Your task to perform on an android device: Clear the shopping cart on ebay. Search for alienware aurora on ebay, select the first entry, add it to the cart, then select checkout. Image 0: 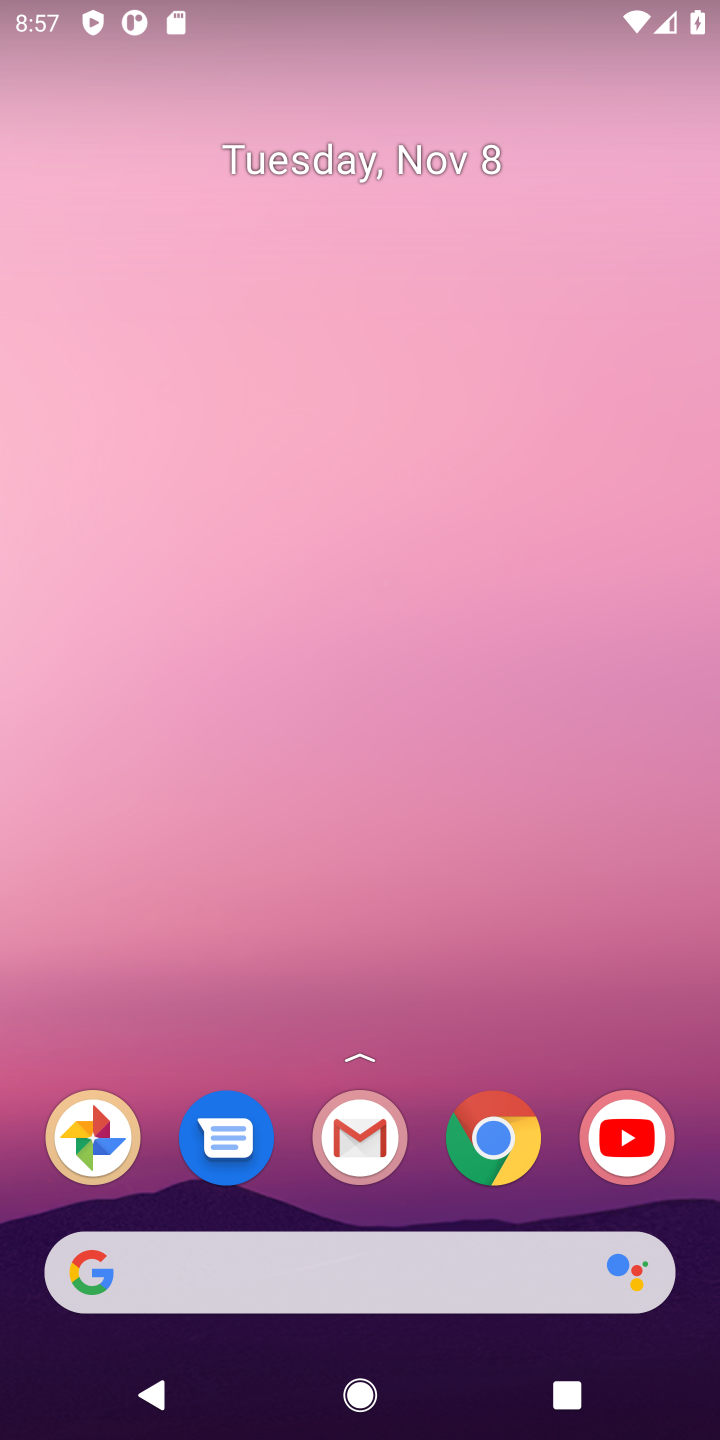
Step 0: click (493, 1121)
Your task to perform on an android device: Clear the shopping cart on ebay. Search for alienware aurora on ebay, select the first entry, add it to the cart, then select checkout. Image 1: 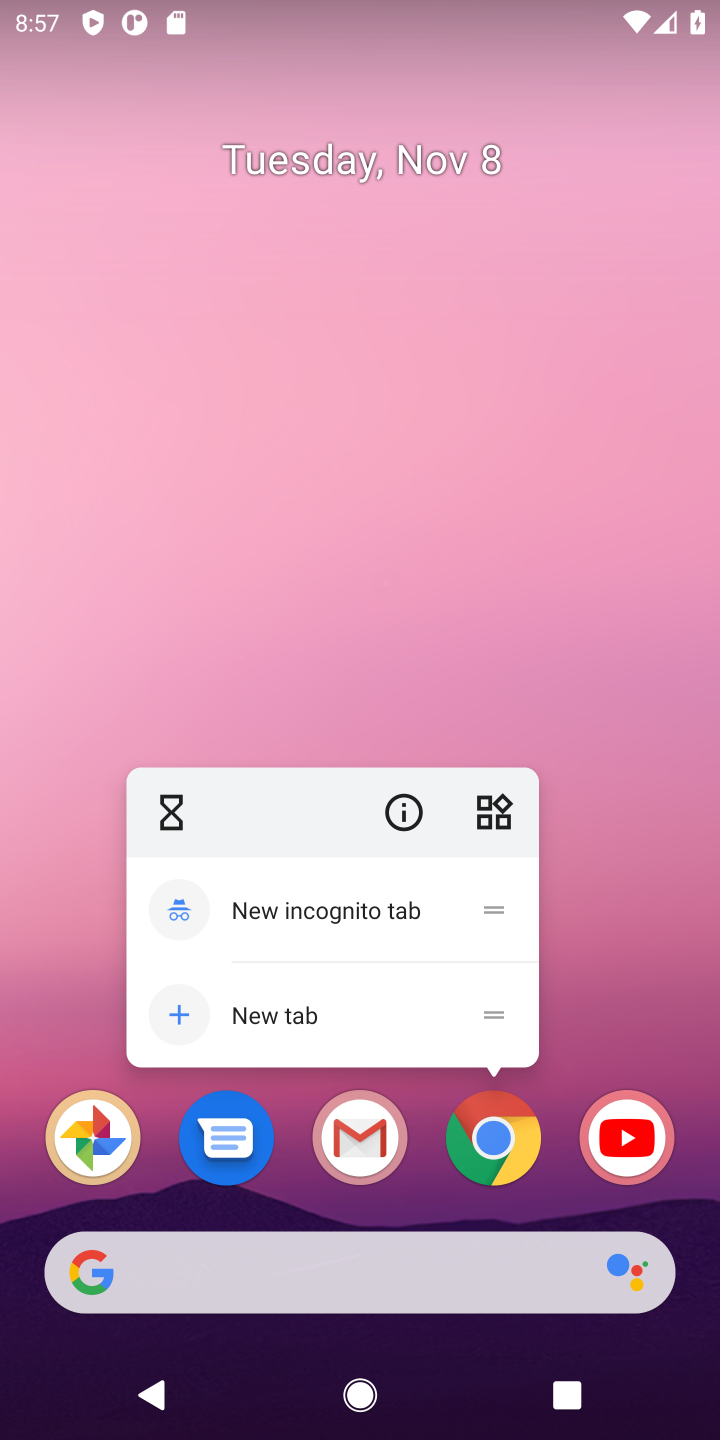
Step 1: click (492, 1154)
Your task to perform on an android device: Clear the shopping cart on ebay. Search for alienware aurora on ebay, select the first entry, add it to the cart, then select checkout. Image 2: 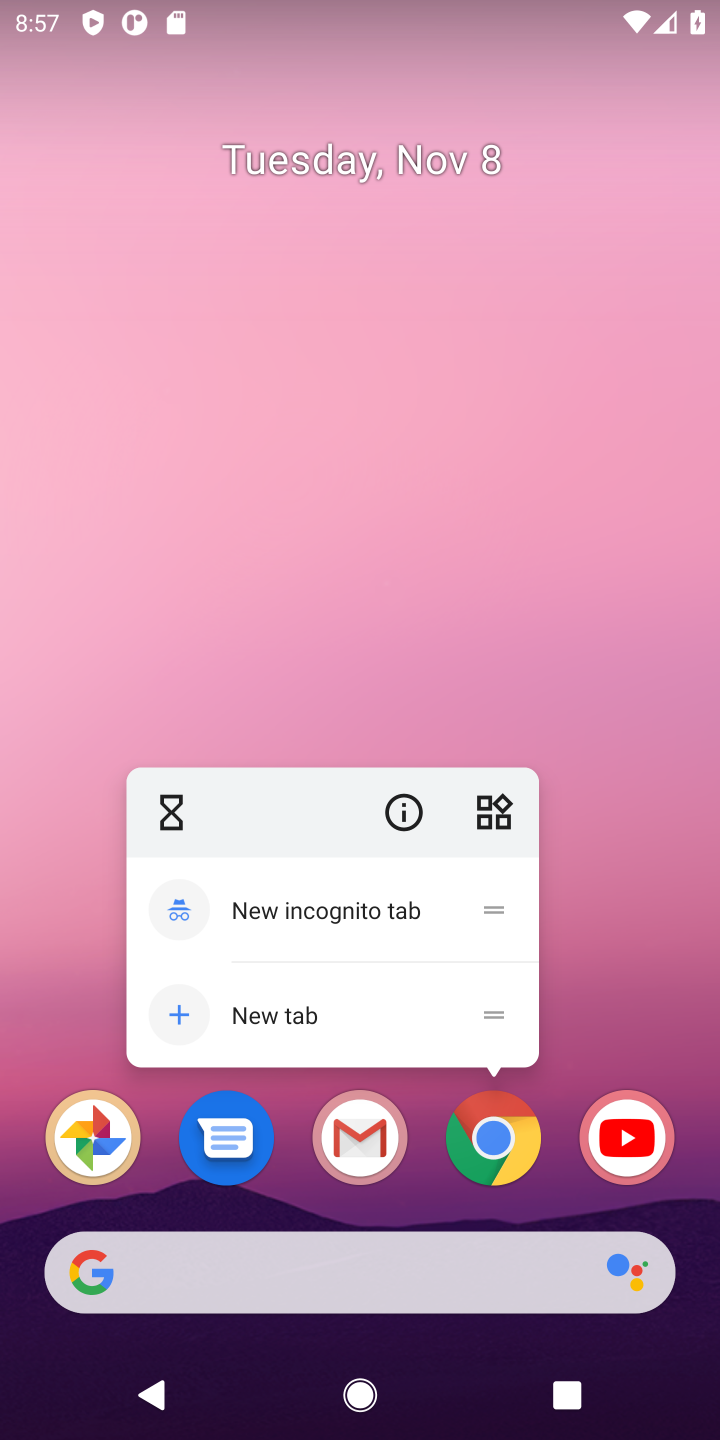
Step 2: click (482, 1125)
Your task to perform on an android device: Clear the shopping cart on ebay. Search for alienware aurora on ebay, select the first entry, add it to the cart, then select checkout. Image 3: 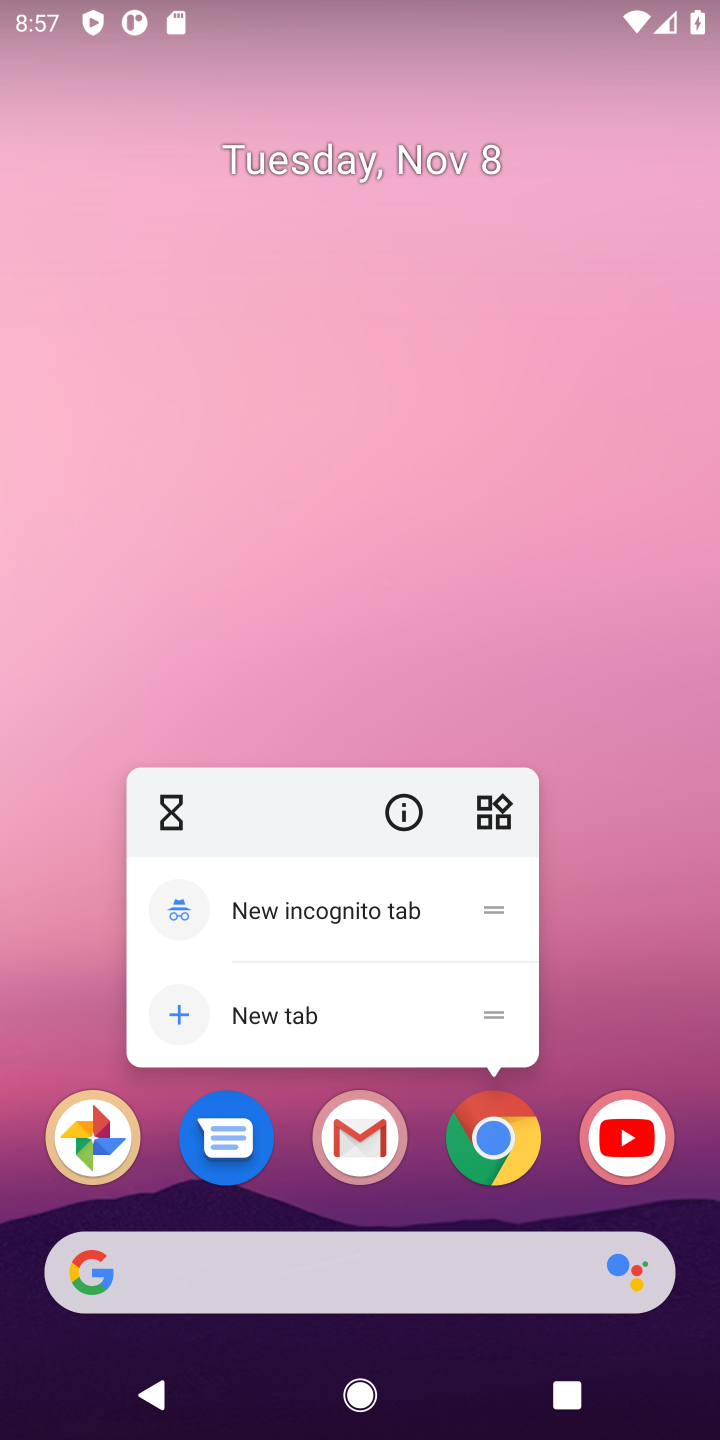
Step 3: click (482, 1132)
Your task to perform on an android device: Clear the shopping cart on ebay. Search for alienware aurora on ebay, select the first entry, add it to the cart, then select checkout. Image 4: 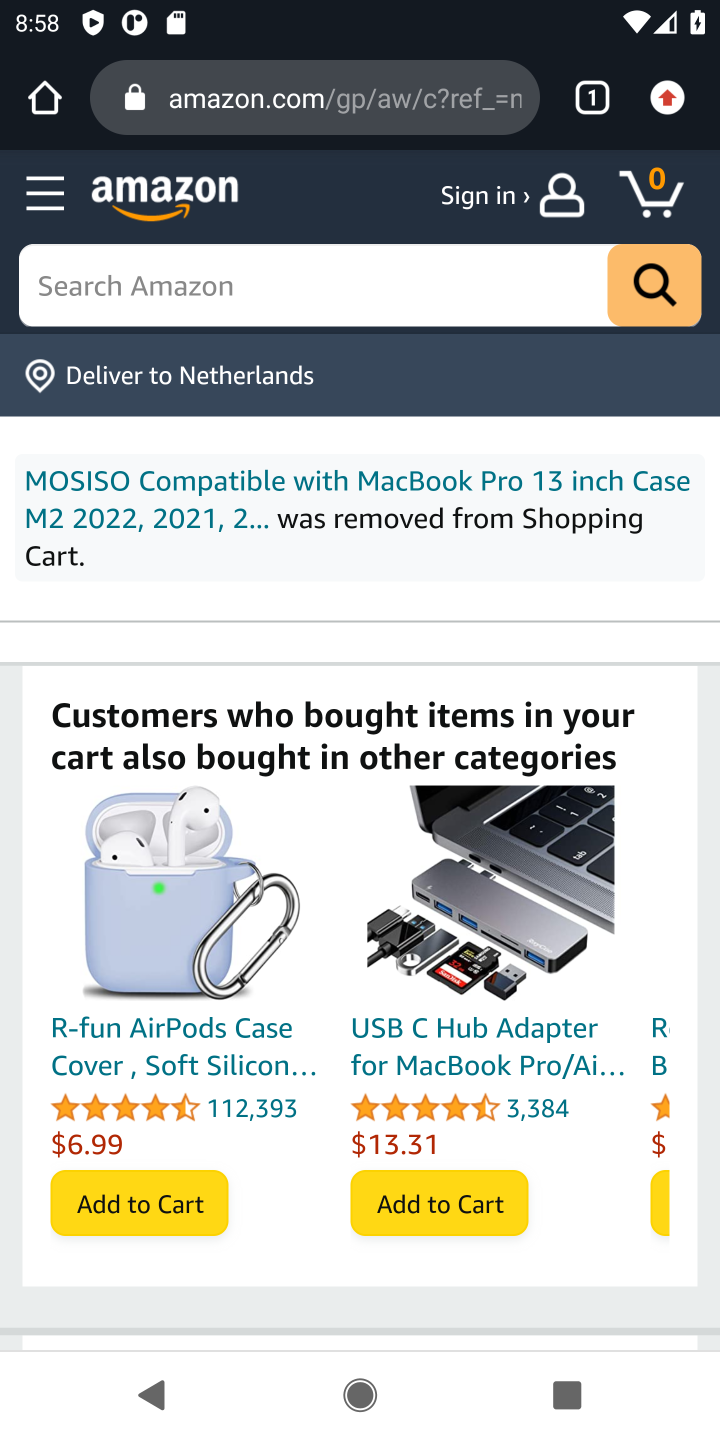
Step 4: click (413, 111)
Your task to perform on an android device: Clear the shopping cart on ebay. Search for alienware aurora on ebay, select the first entry, add it to the cart, then select checkout. Image 5: 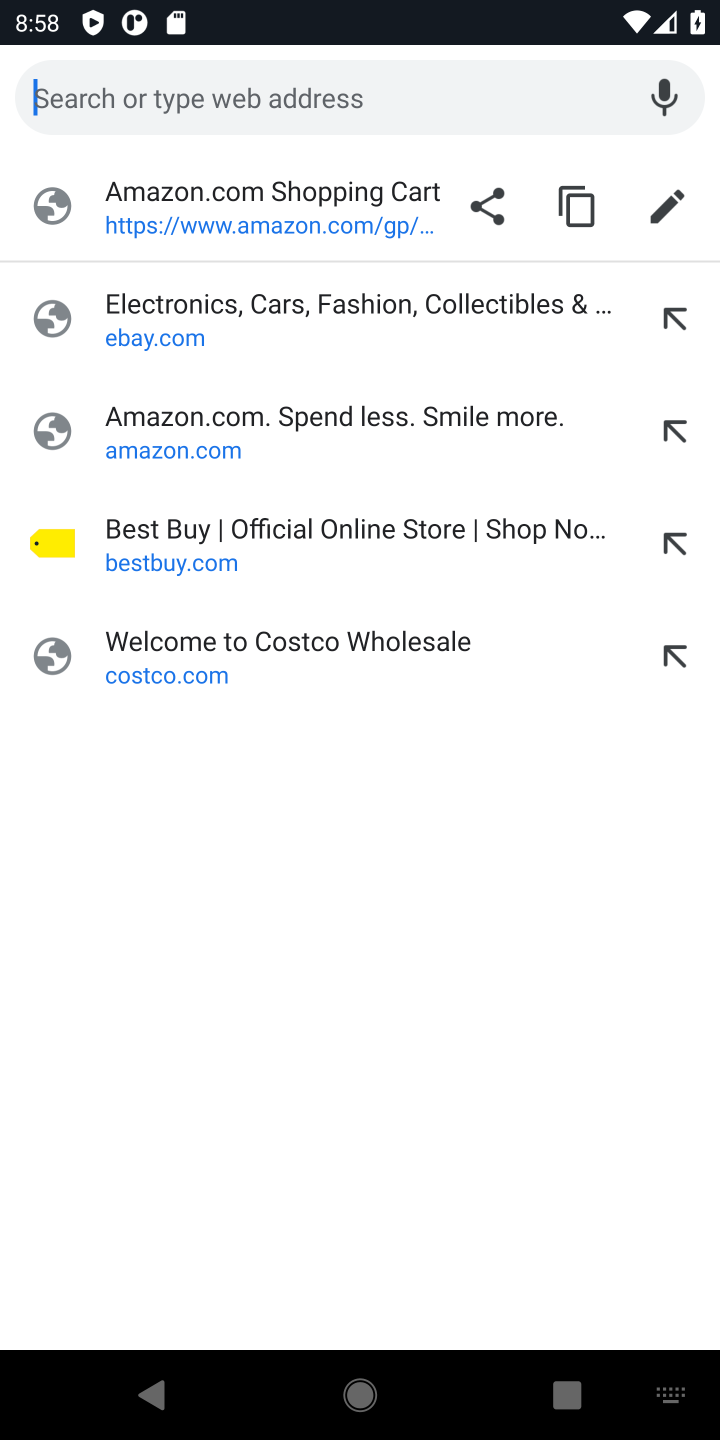
Step 5: click (175, 337)
Your task to perform on an android device: Clear the shopping cart on ebay. Search for alienware aurora on ebay, select the first entry, add it to the cart, then select checkout. Image 6: 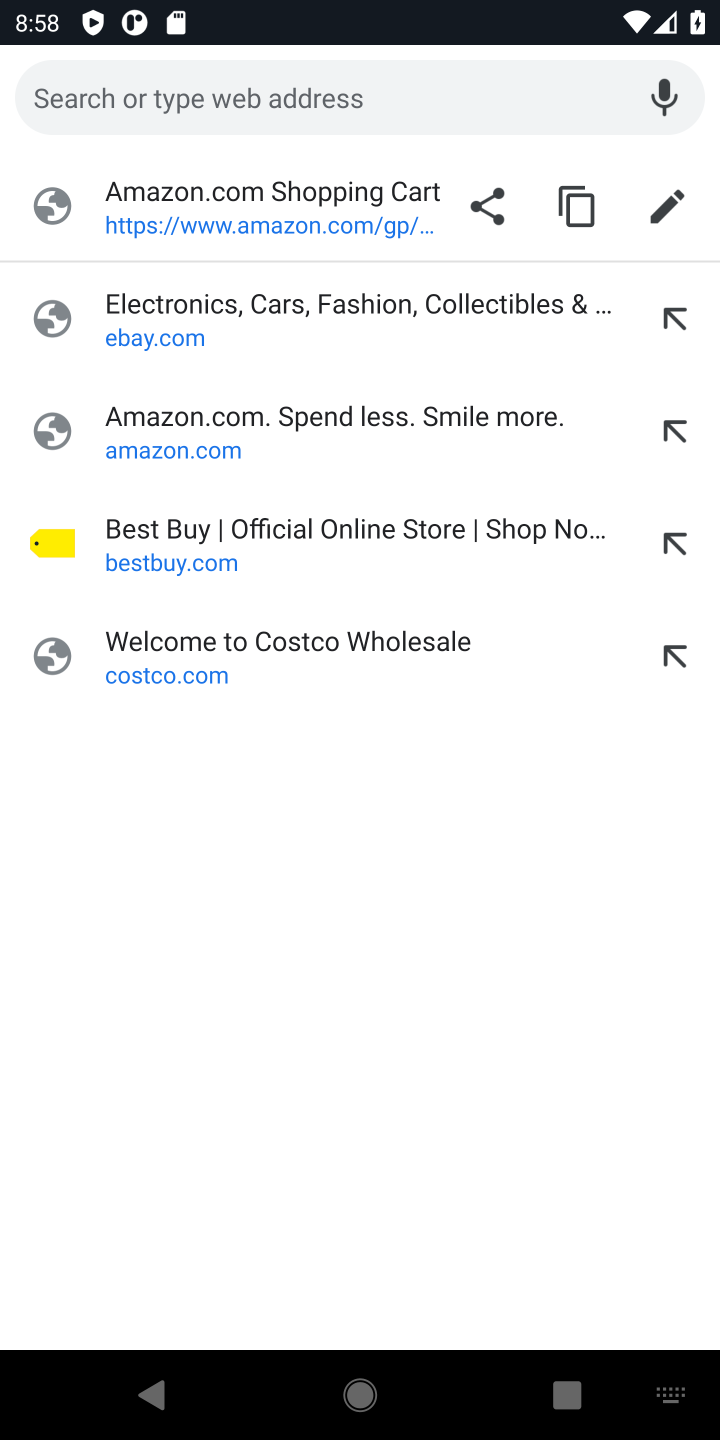
Step 6: click (143, 326)
Your task to perform on an android device: Clear the shopping cart on ebay. Search for alienware aurora on ebay, select the first entry, add it to the cart, then select checkout. Image 7: 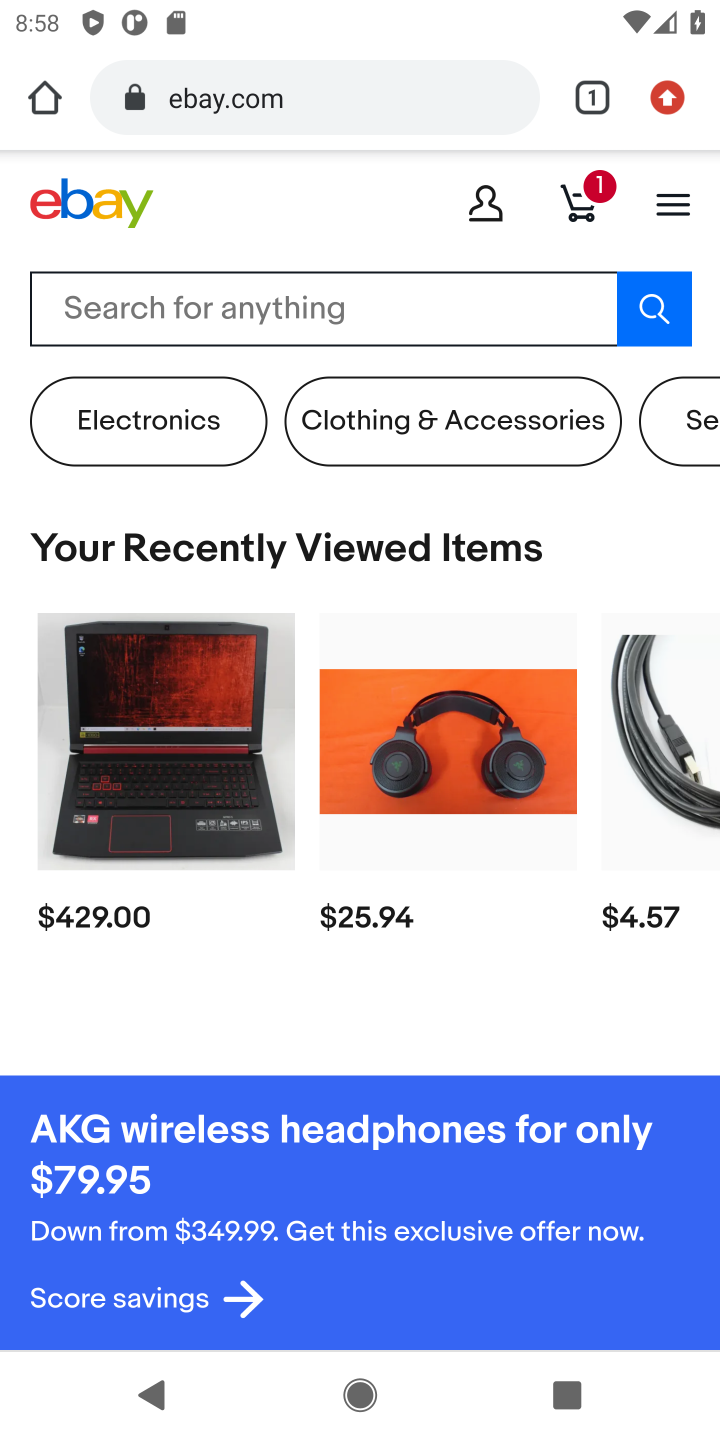
Step 7: click (596, 179)
Your task to perform on an android device: Clear the shopping cart on ebay. Search for alienware aurora on ebay, select the first entry, add it to the cart, then select checkout. Image 8: 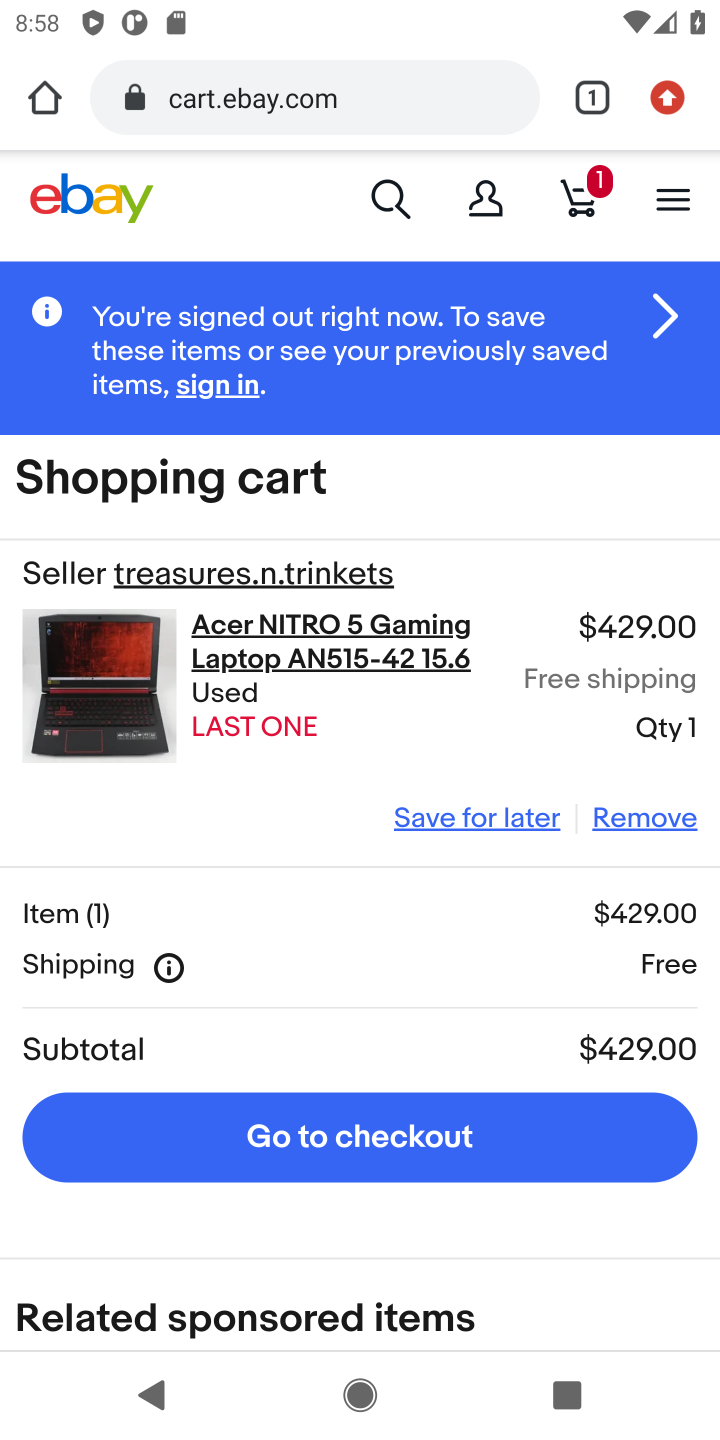
Step 8: click (659, 820)
Your task to perform on an android device: Clear the shopping cart on ebay. Search for alienware aurora on ebay, select the first entry, add it to the cart, then select checkout. Image 9: 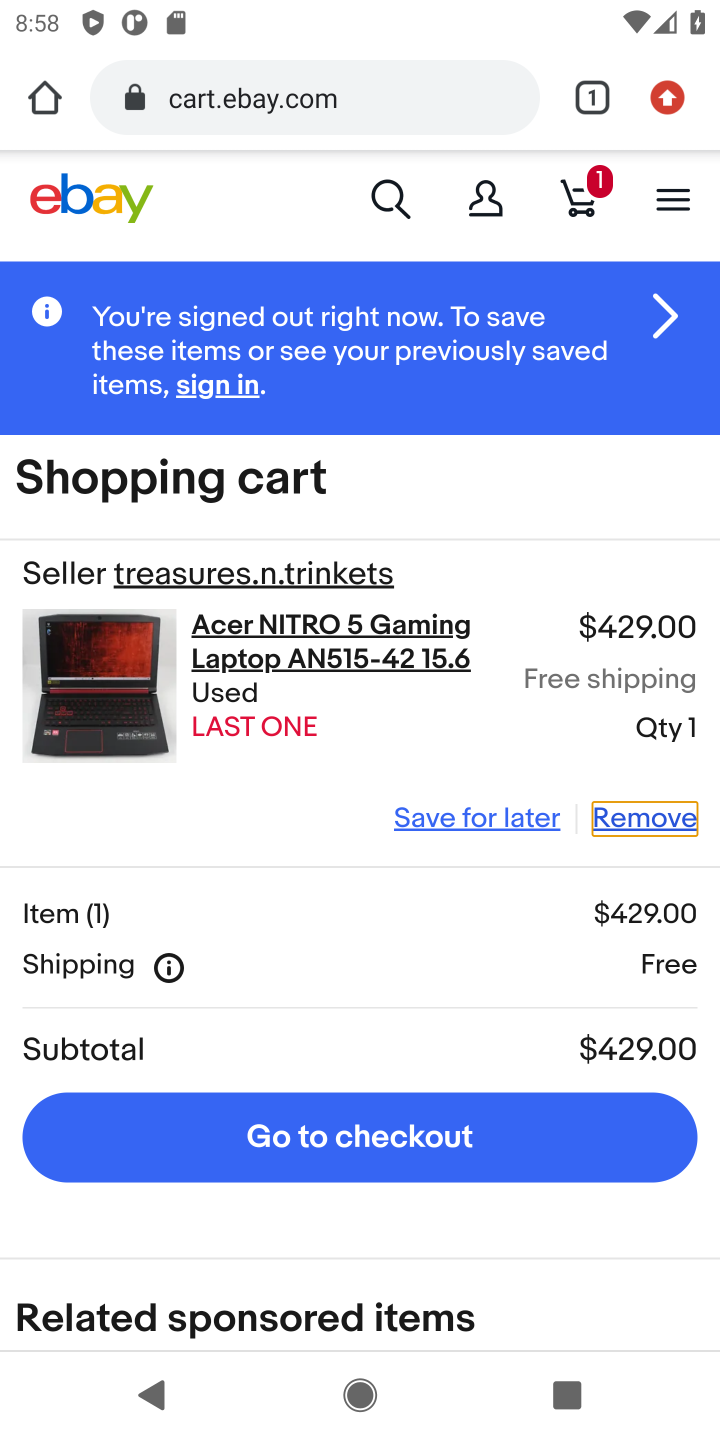
Step 9: click (652, 809)
Your task to perform on an android device: Clear the shopping cart on ebay. Search for alienware aurora on ebay, select the first entry, add it to the cart, then select checkout. Image 10: 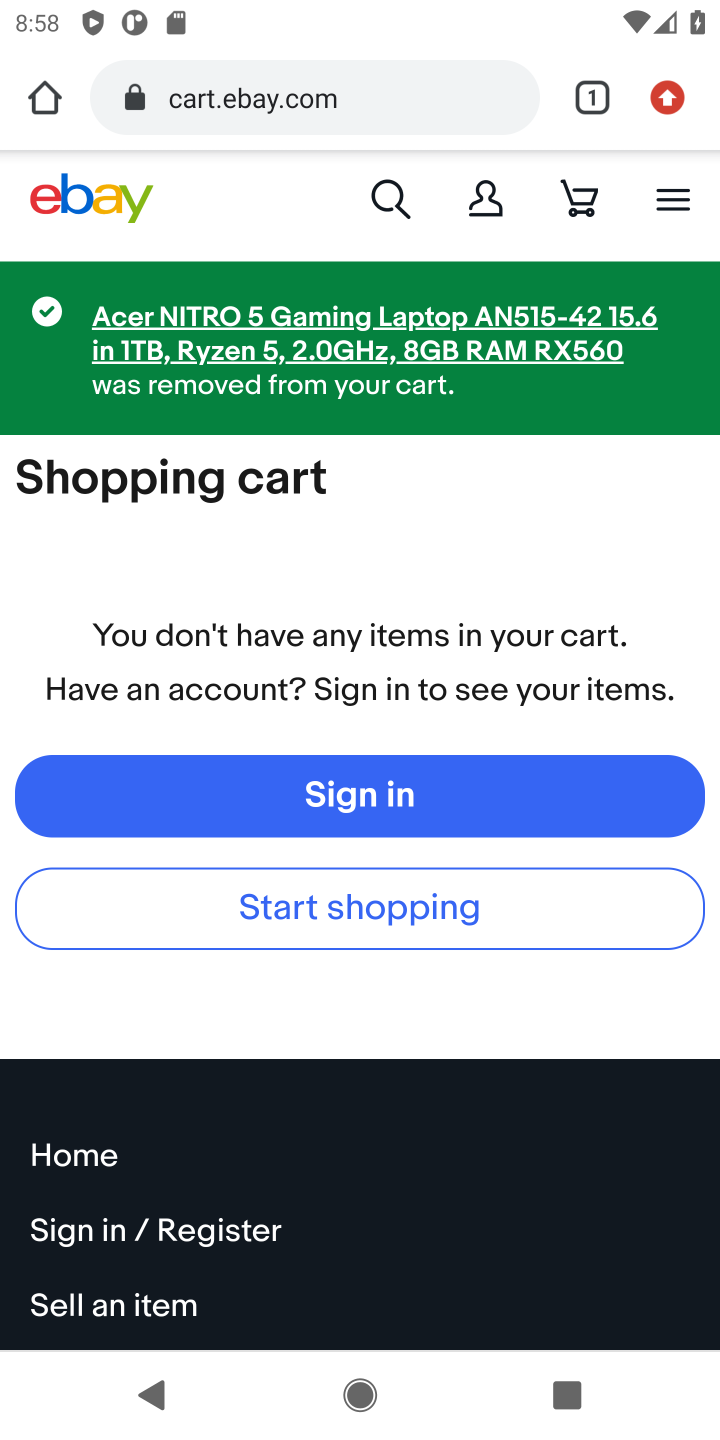
Step 10: click (389, 187)
Your task to perform on an android device: Clear the shopping cart on ebay. Search for alienware aurora on ebay, select the first entry, add it to the cart, then select checkout. Image 11: 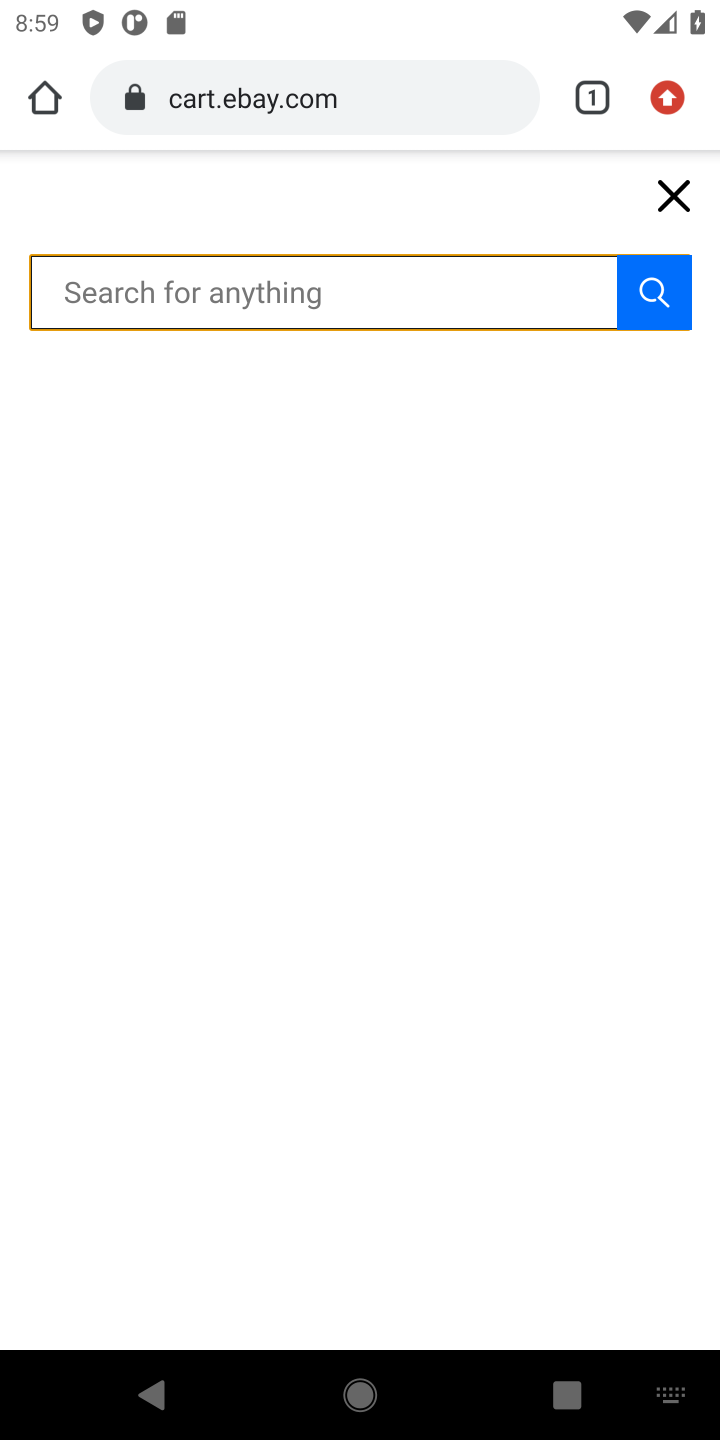
Step 11: type " alienware aurora"
Your task to perform on an android device: Clear the shopping cart on ebay. Search for alienware aurora on ebay, select the first entry, add it to the cart, then select checkout. Image 12: 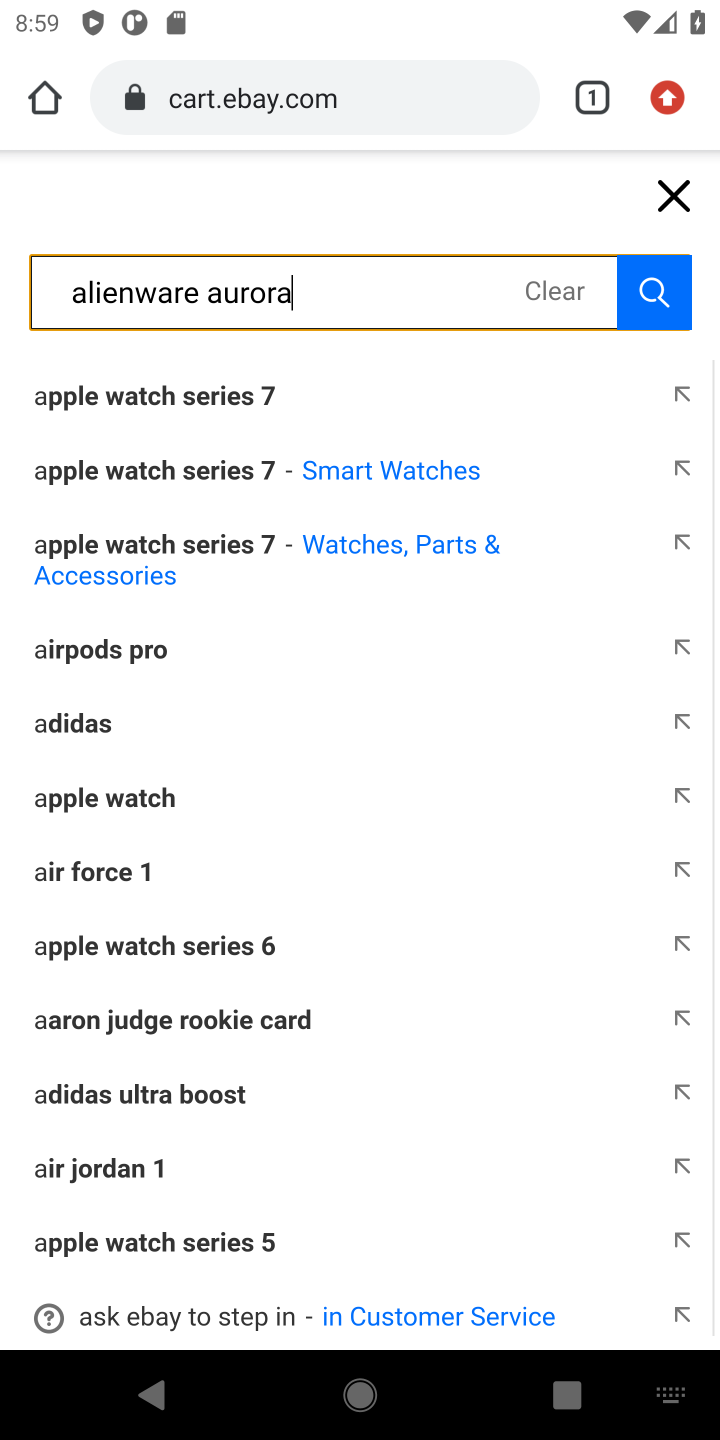
Step 12: press enter
Your task to perform on an android device: Clear the shopping cart on ebay. Search for alienware aurora on ebay, select the first entry, add it to the cart, then select checkout. Image 13: 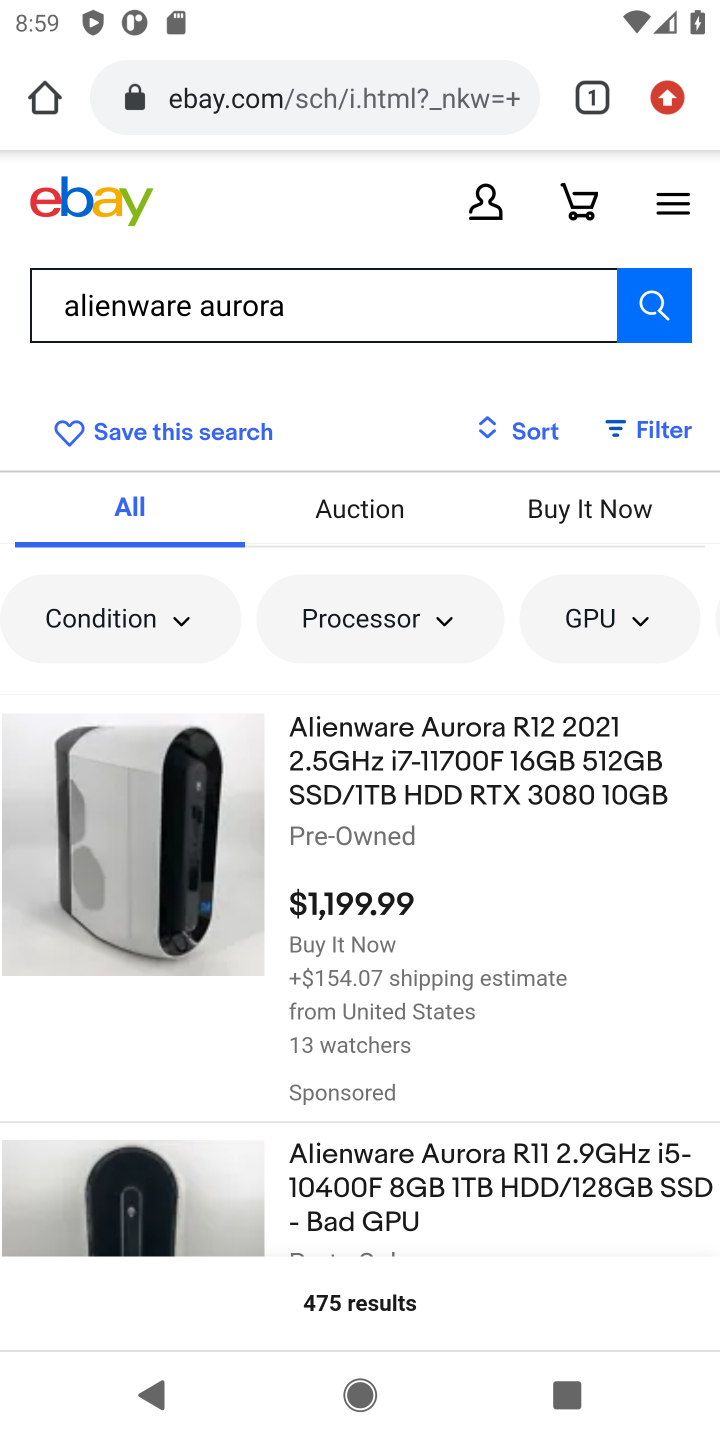
Step 13: click (381, 783)
Your task to perform on an android device: Clear the shopping cart on ebay. Search for alienware aurora on ebay, select the first entry, add it to the cart, then select checkout. Image 14: 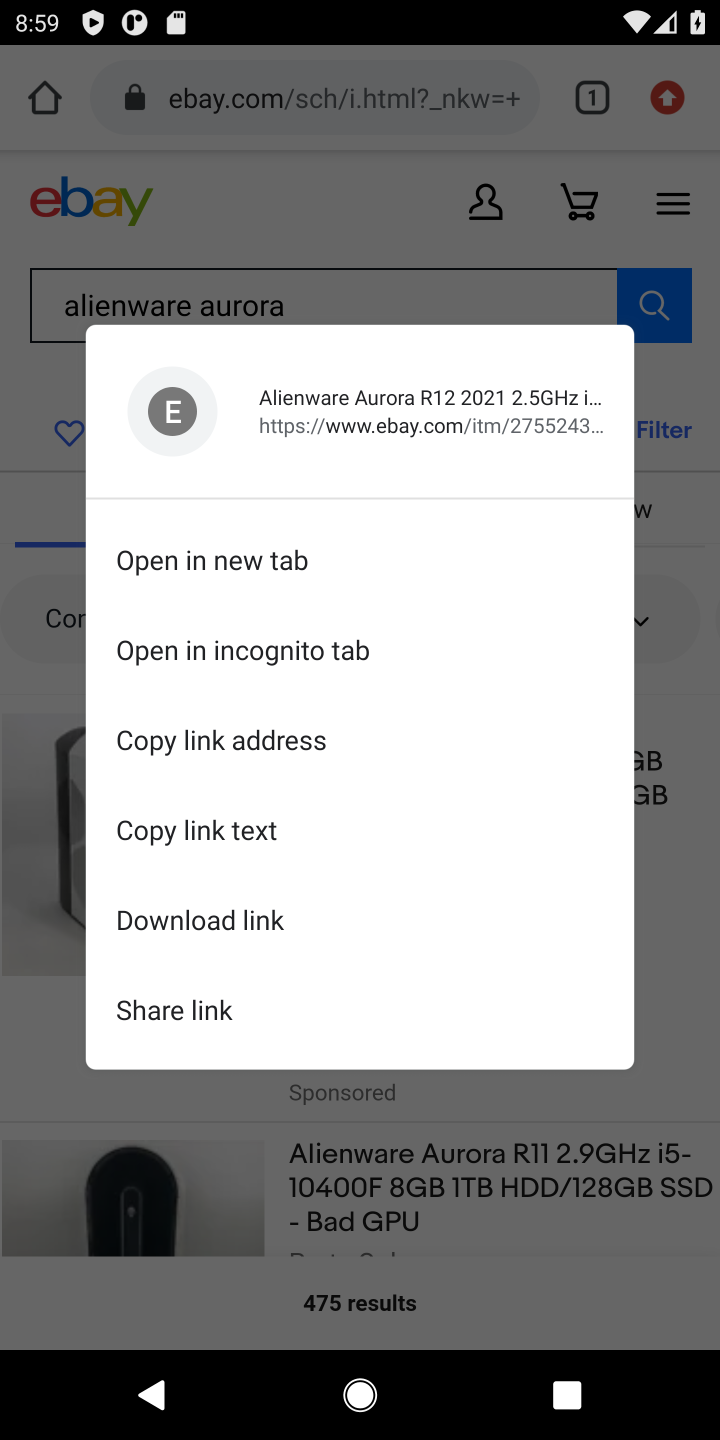
Step 14: click (653, 790)
Your task to perform on an android device: Clear the shopping cart on ebay. Search for alienware aurora on ebay, select the first entry, add it to the cart, then select checkout. Image 15: 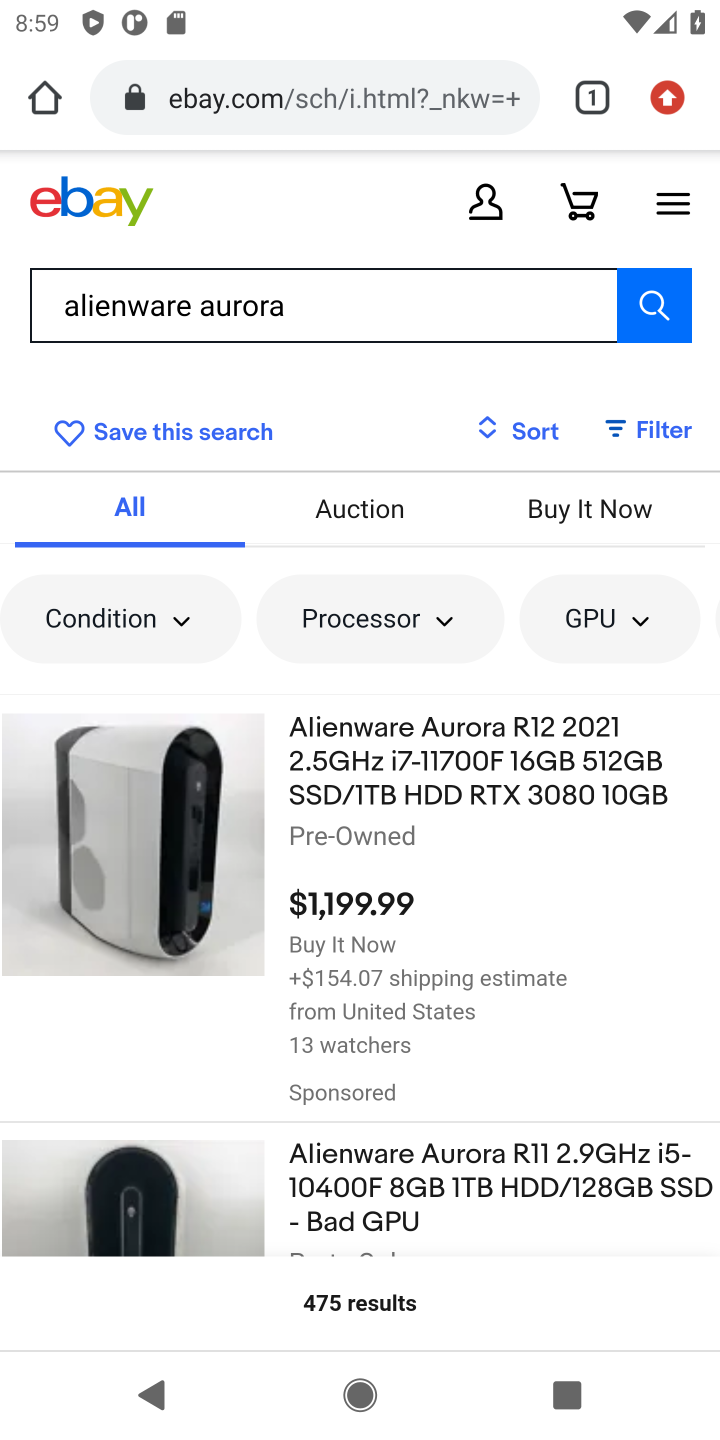
Step 15: click (317, 721)
Your task to perform on an android device: Clear the shopping cart on ebay. Search for alienware aurora on ebay, select the first entry, add it to the cart, then select checkout. Image 16: 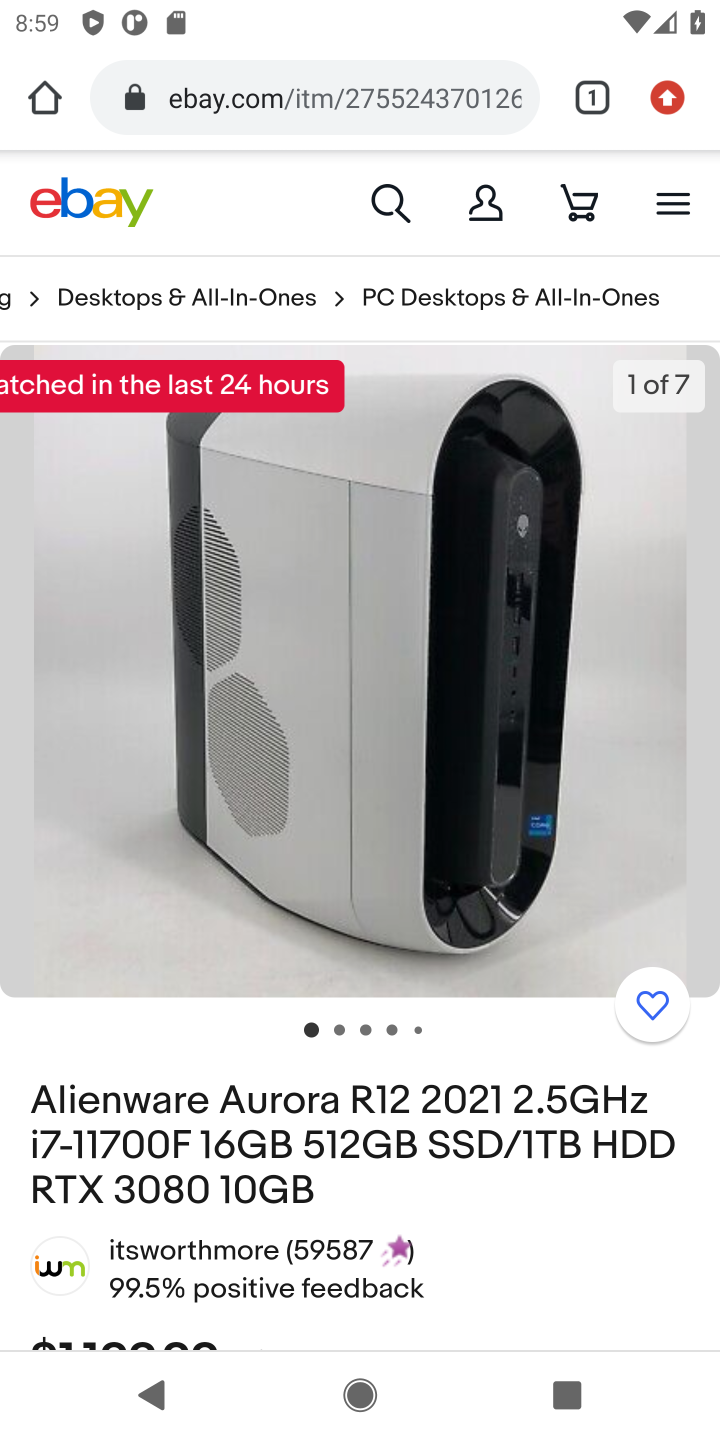
Step 16: drag from (397, 1202) to (503, 326)
Your task to perform on an android device: Clear the shopping cart on ebay. Search for alienware aurora on ebay, select the first entry, add it to the cart, then select checkout. Image 17: 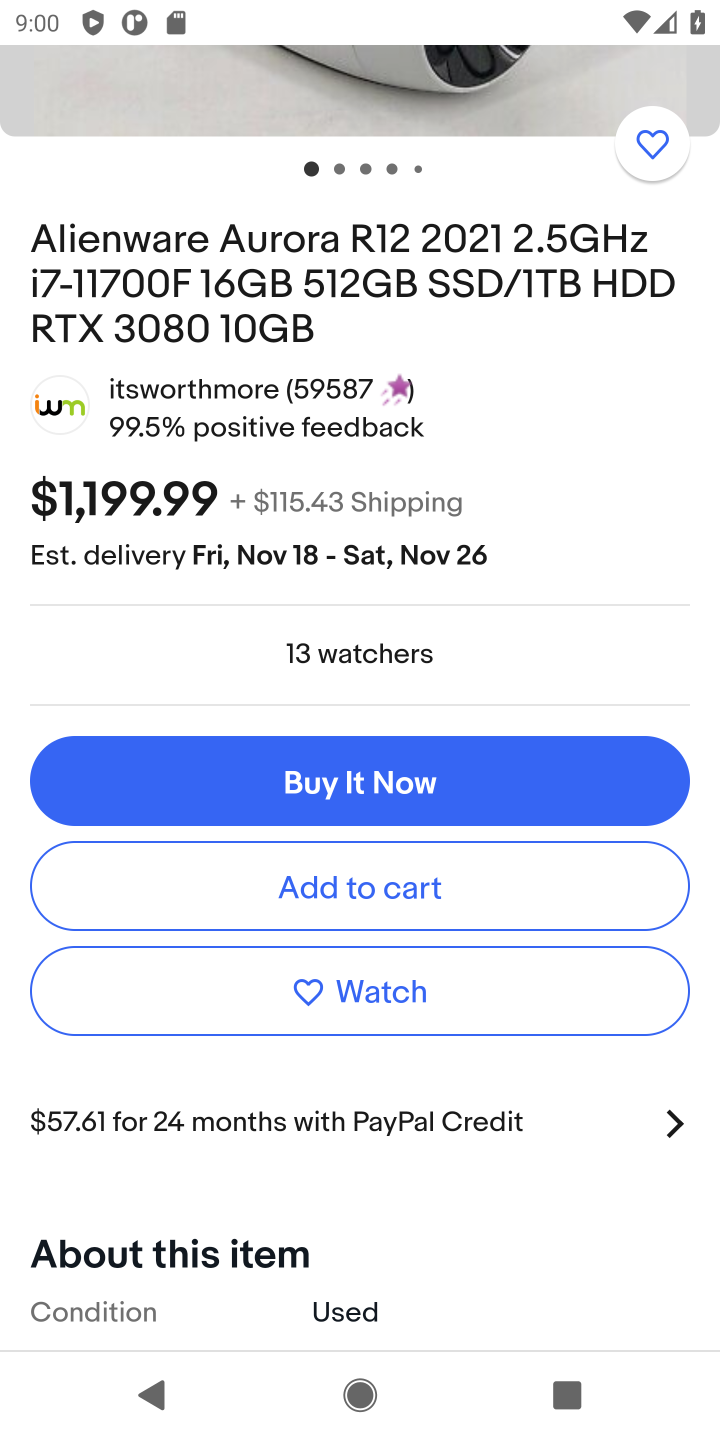
Step 17: click (363, 883)
Your task to perform on an android device: Clear the shopping cart on ebay. Search for alienware aurora on ebay, select the first entry, add it to the cart, then select checkout. Image 18: 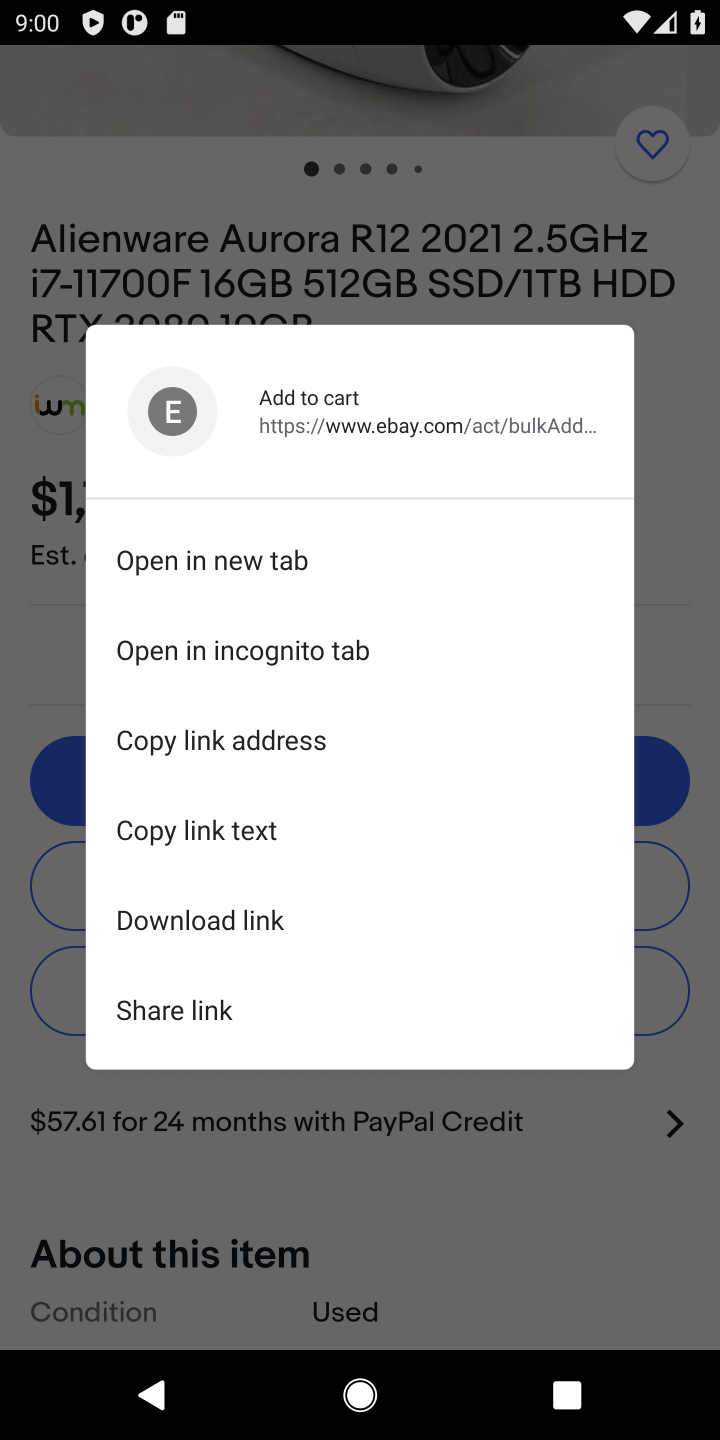
Step 18: click (667, 886)
Your task to perform on an android device: Clear the shopping cart on ebay. Search for alienware aurora on ebay, select the first entry, add it to the cart, then select checkout. Image 19: 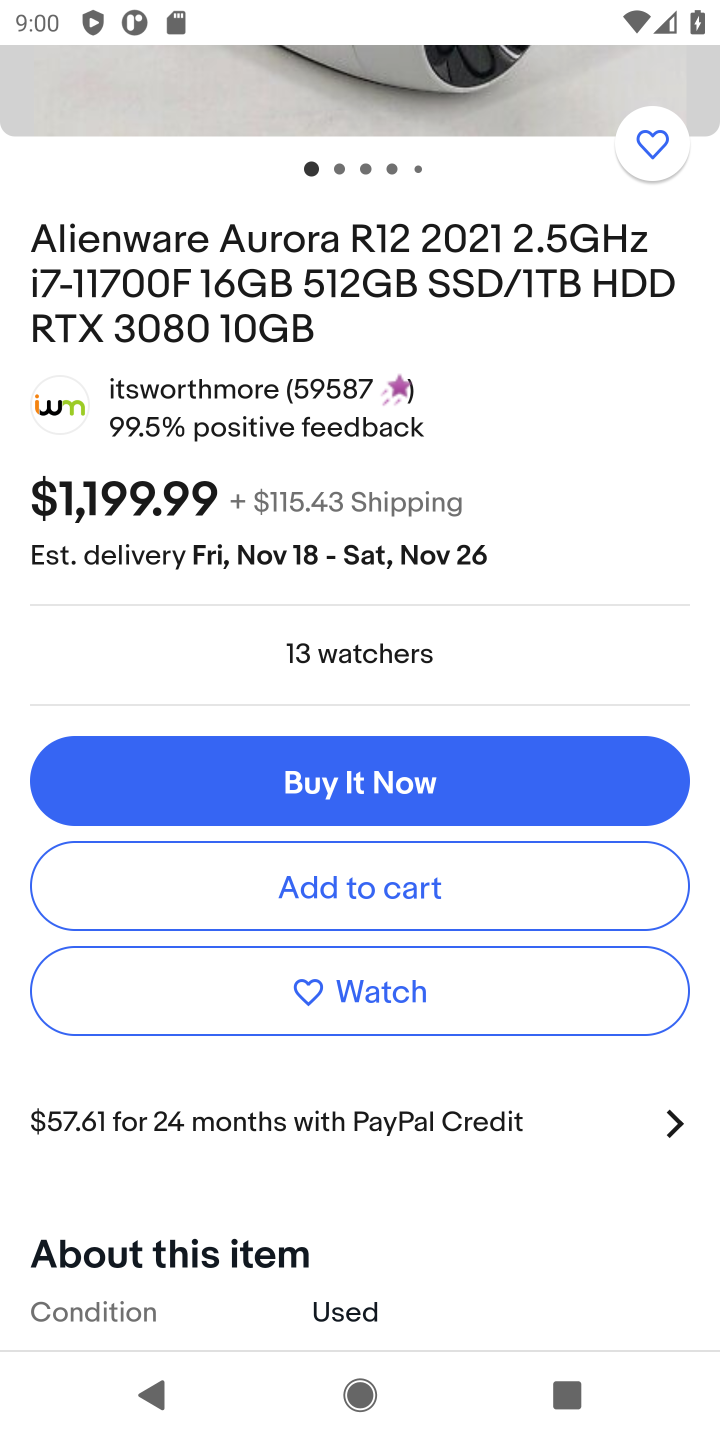
Step 19: click (367, 886)
Your task to perform on an android device: Clear the shopping cart on ebay. Search for alienware aurora on ebay, select the first entry, add it to the cart, then select checkout. Image 20: 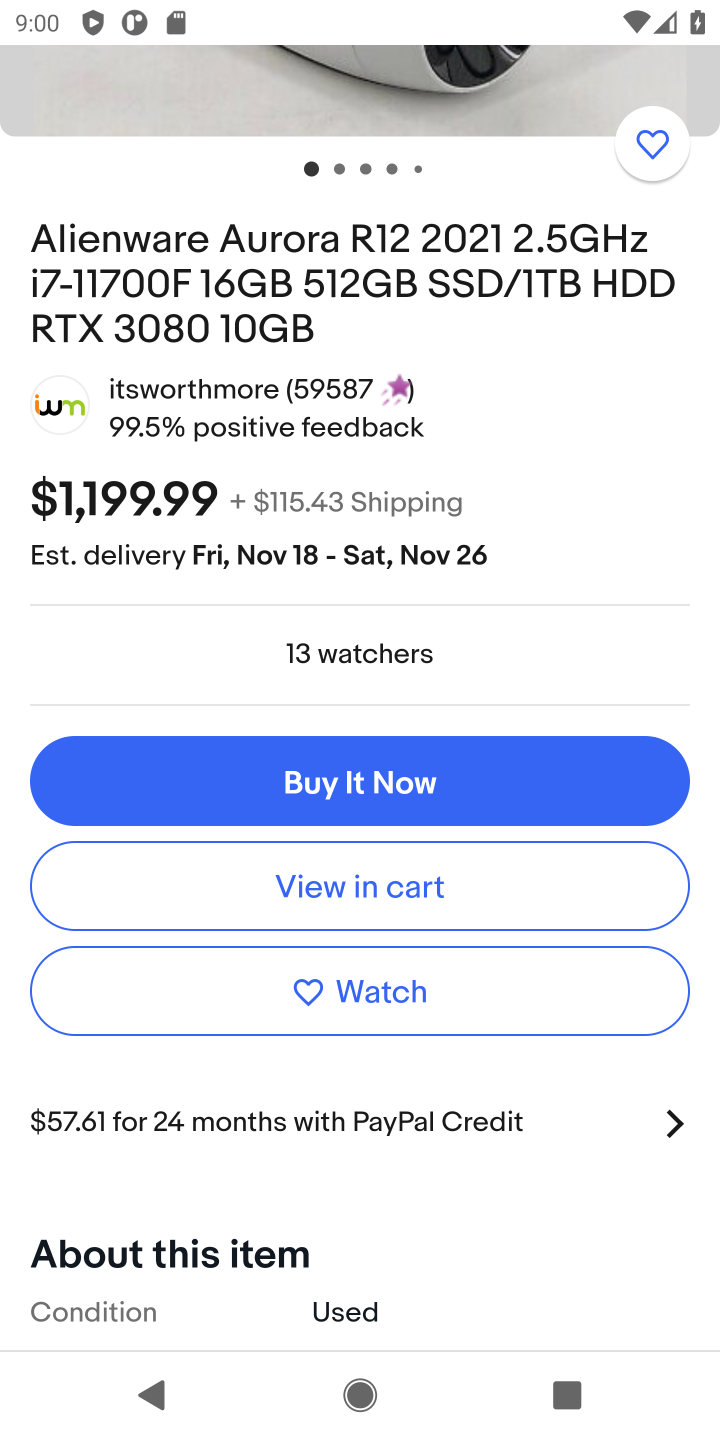
Step 20: click (367, 886)
Your task to perform on an android device: Clear the shopping cart on ebay. Search for alienware aurora on ebay, select the first entry, add it to the cart, then select checkout. Image 21: 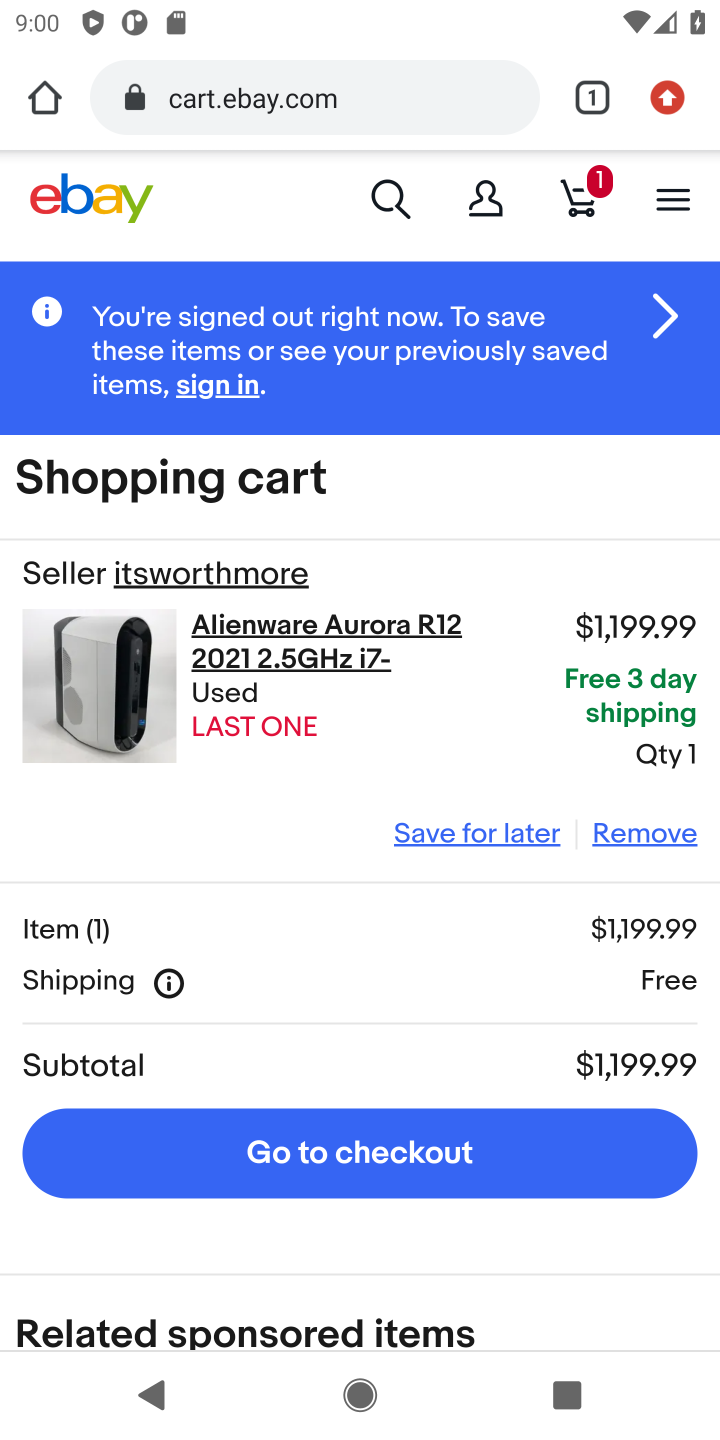
Step 21: click (394, 1148)
Your task to perform on an android device: Clear the shopping cart on ebay. Search for alienware aurora on ebay, select the first entry, add it to the cart, then select checkout. Image 22: 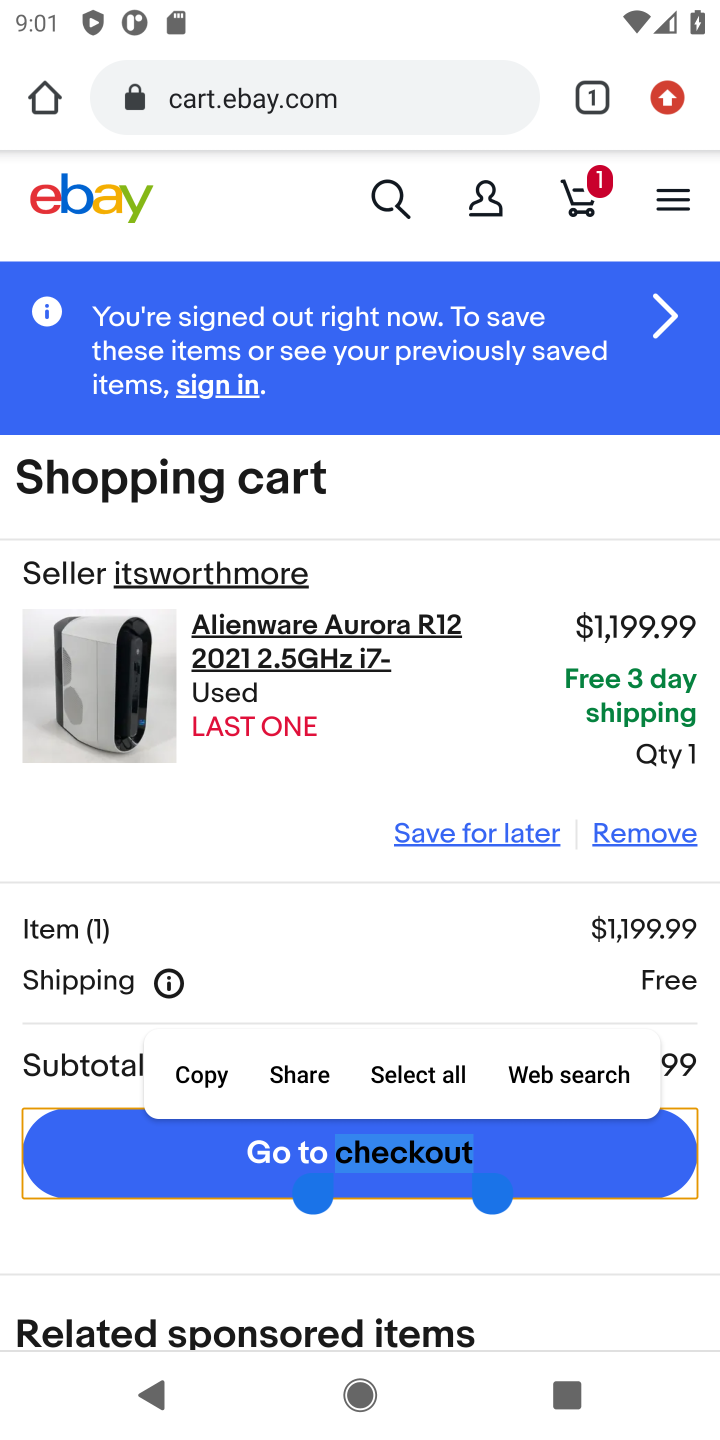
Step 22: click (303, 1160)
Your task to perform on an android device: Clear the shopping cart on ebay. Search for alienware aurora on ebay, select the first entry, add it to the cart, then select checkout. Image 23: 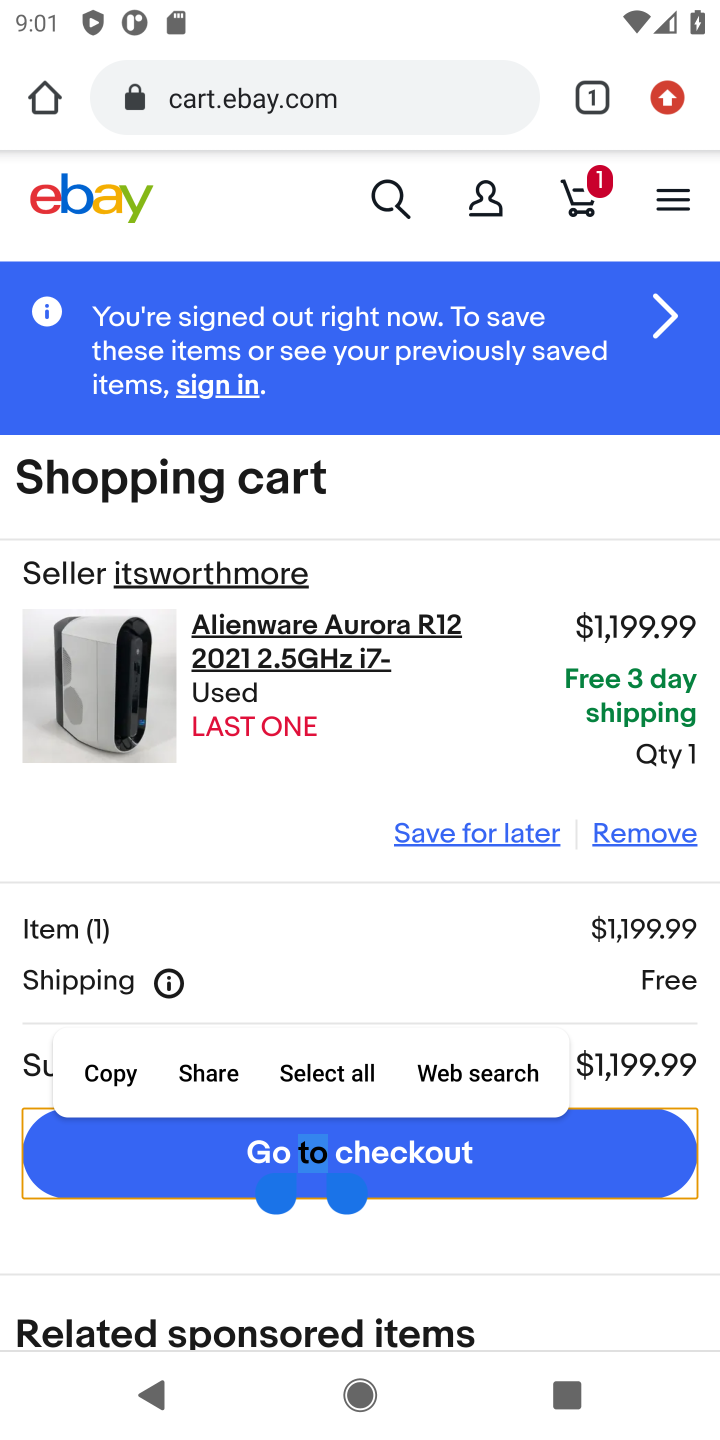
Step 23: click (384, 1148)
Your task to perform on an android device: Clear the shopping cart on ebay. Search for alienware aurora on ebay, select the first entry, add it to the cart, then select checkout. Image 24: 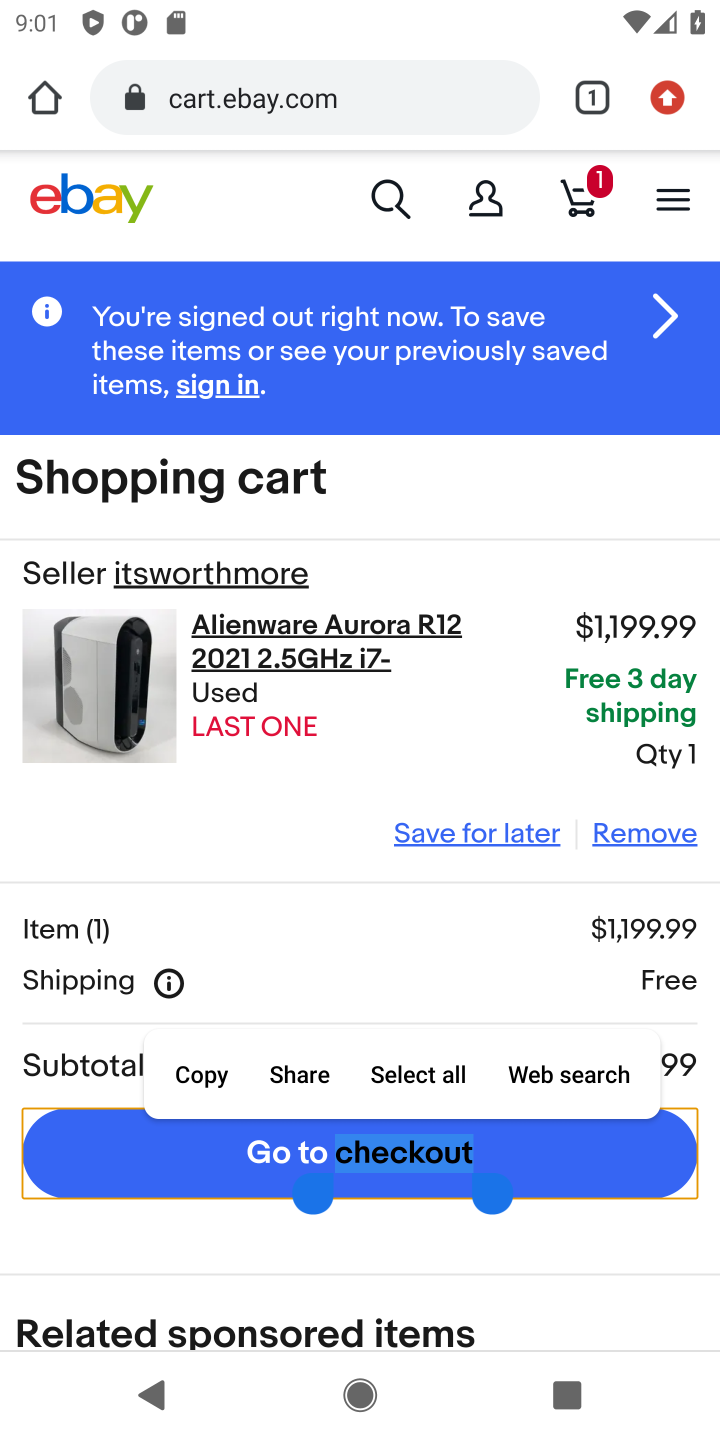
Step 24: click (279, 1148)
Your task to perform on an android device: Clear the shopping cart on ebay. Search for alienware aurora on ebay, select the first entry, add it to the cart, then select checkout. Image 25: 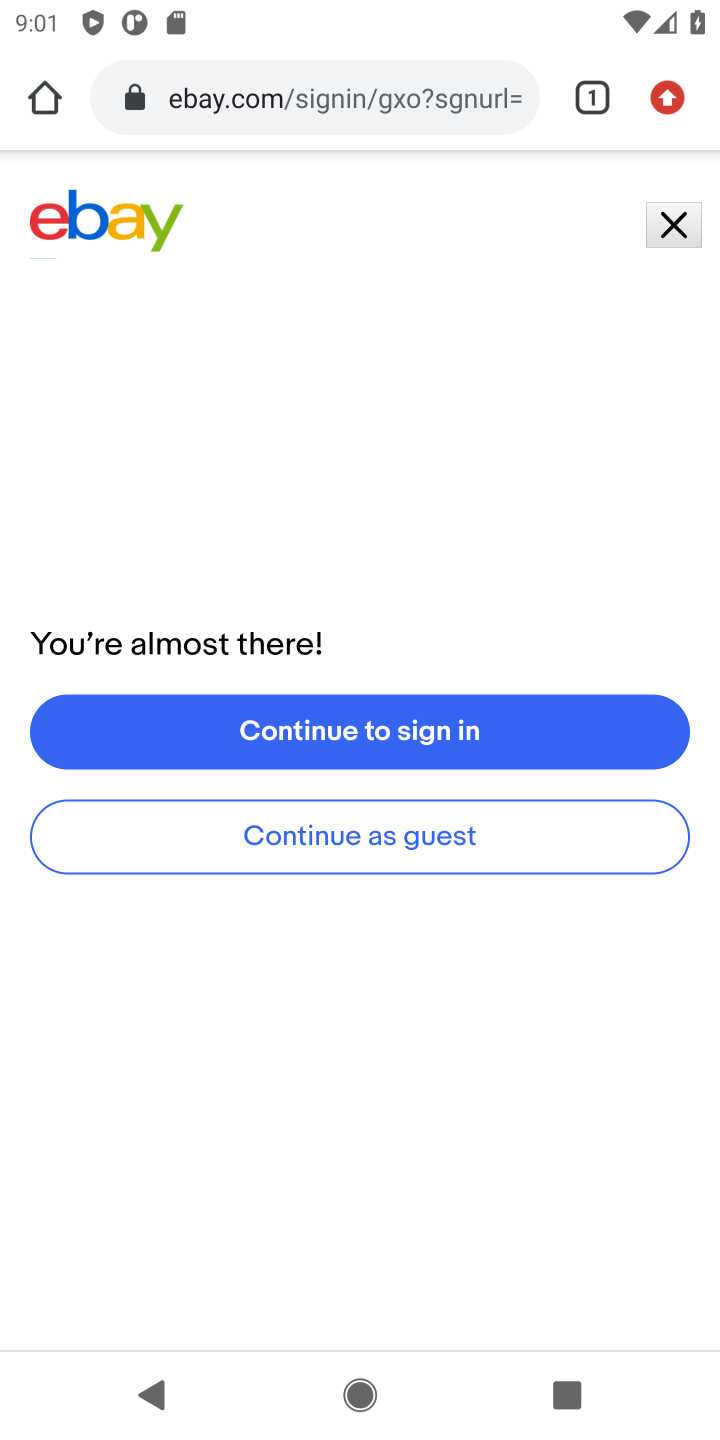
Step 25: task complete